Your task to perform on an android device: turn off smart reply in the gmail app Image 0: 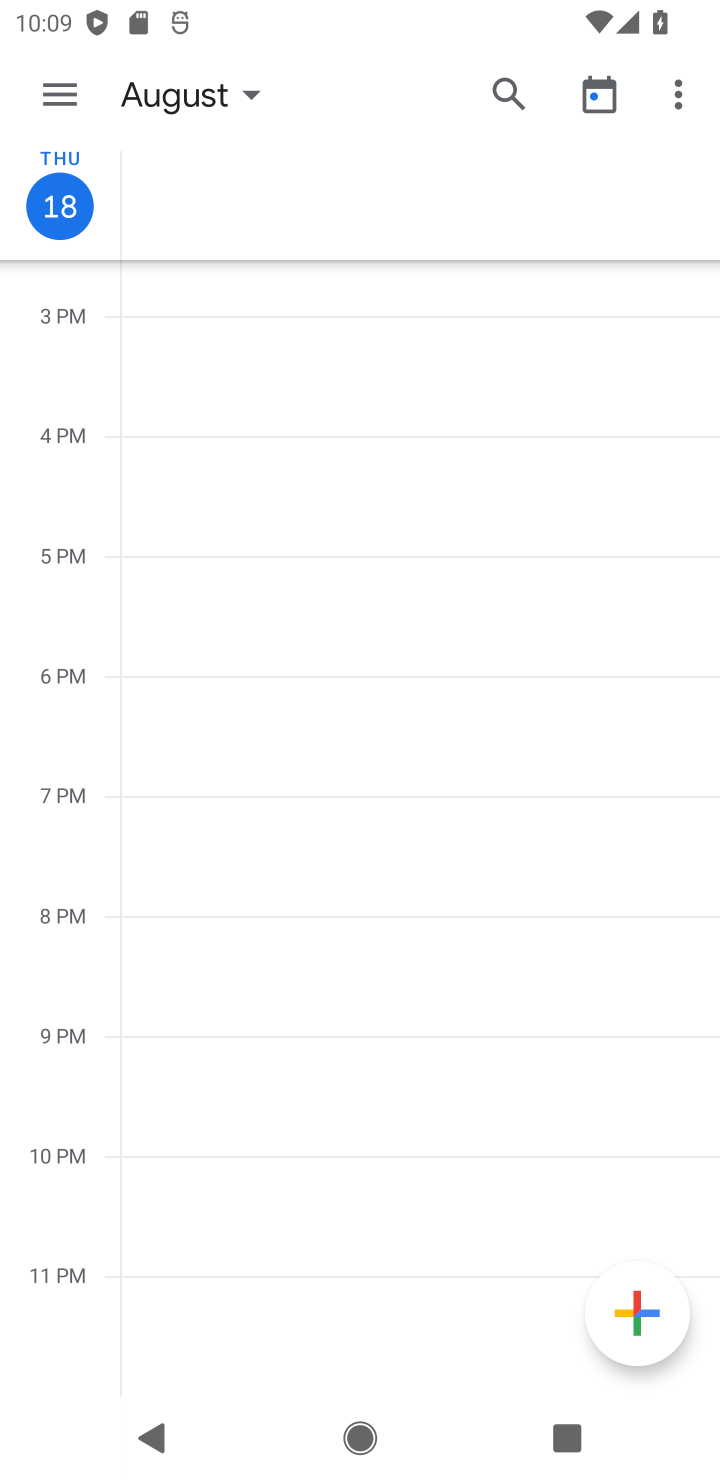
Step 0: press home button
Your task to perform on an android device: turn off smart reply in the gmail app Image 1: 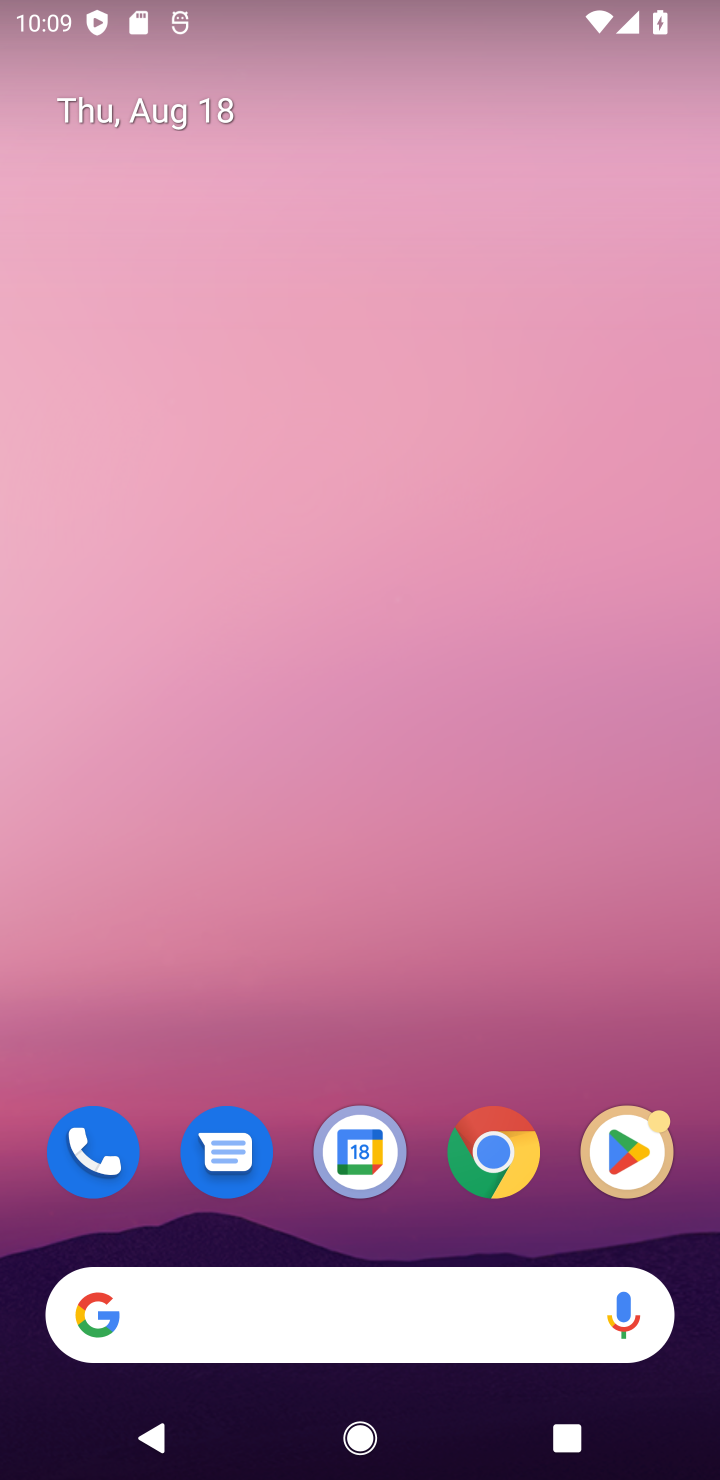
Step 1: drag from (449, 622) to (465, 31)
Your task to perform on an android device: turn off smart reply in the gmail app Image 2: 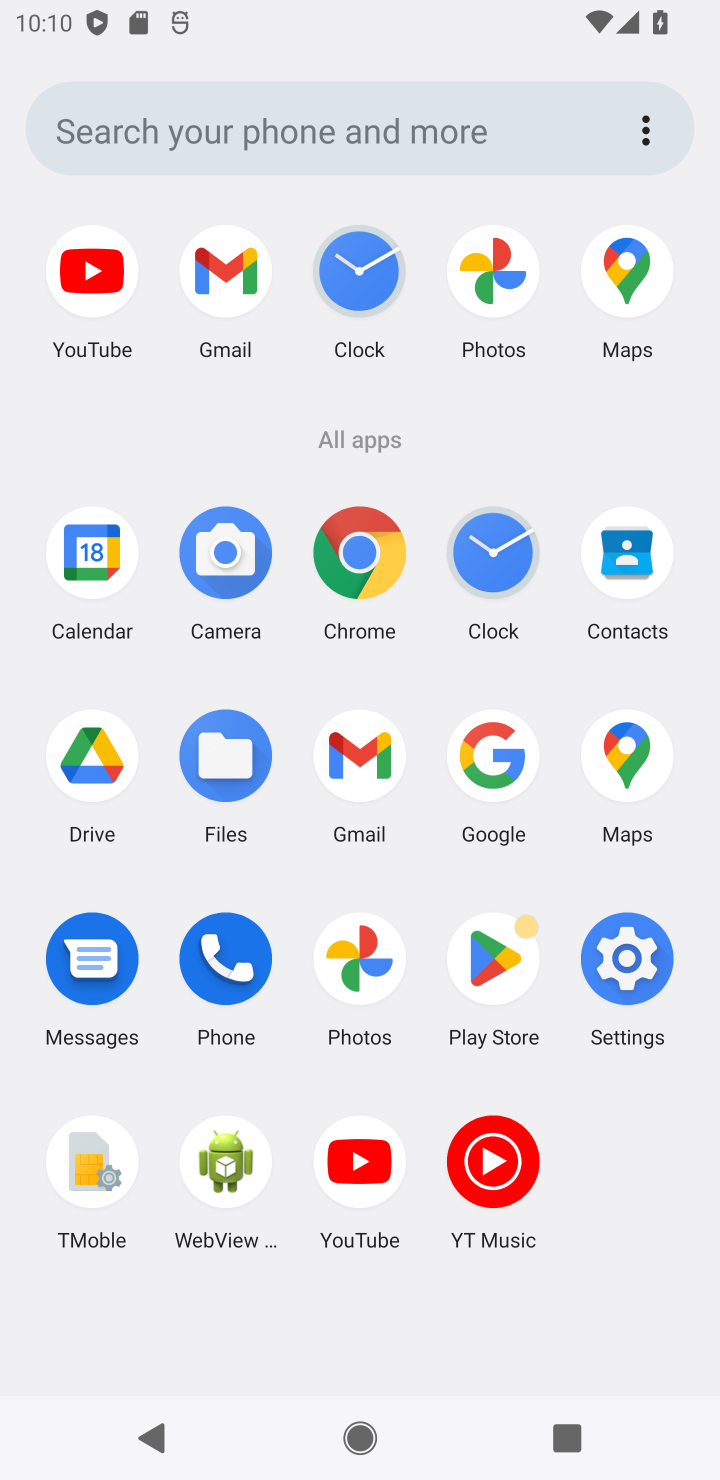
Step 2: click (232, 276)
Your task to perform on an android device: turn off smart reply in the gmail app Image 3: 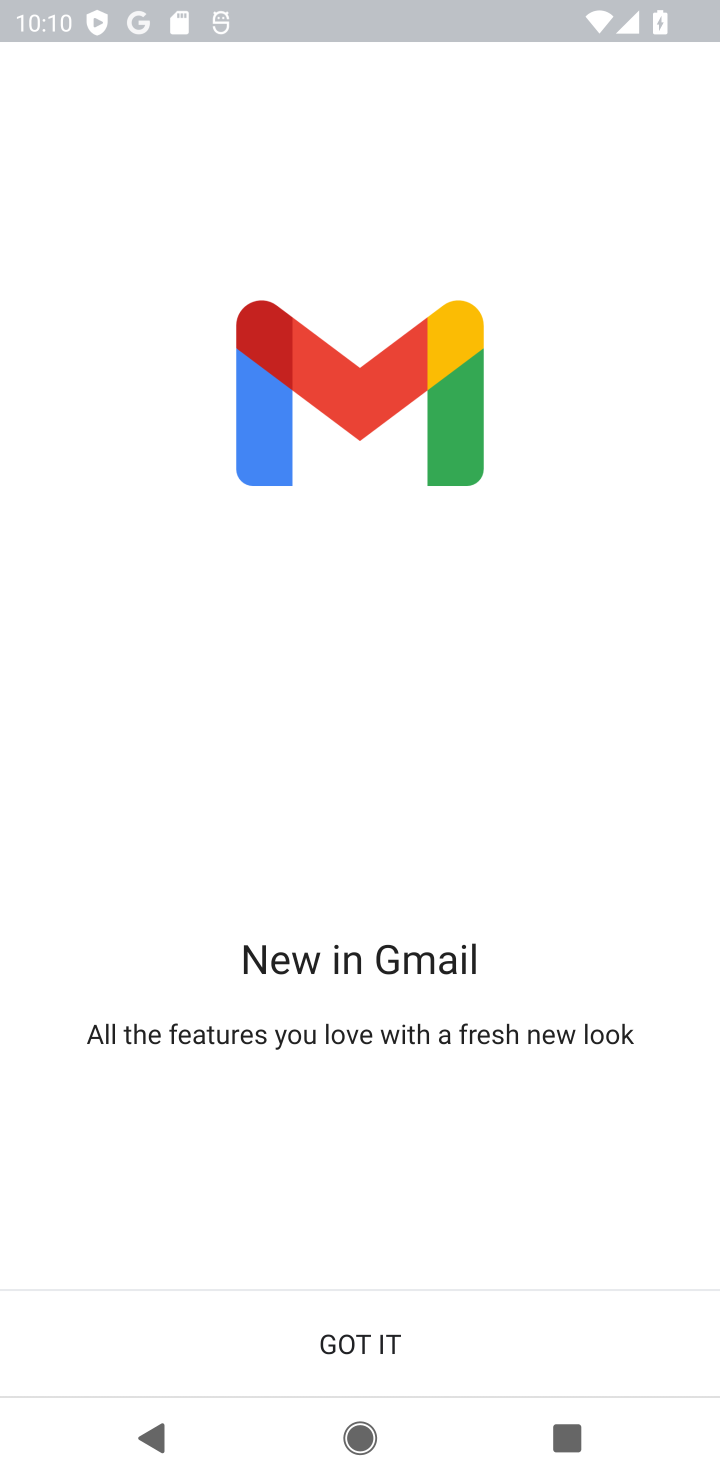
Step 3: click (353, 1342)
Your task to perform on an android device: turn off smart reply in the gmail app Image 4: 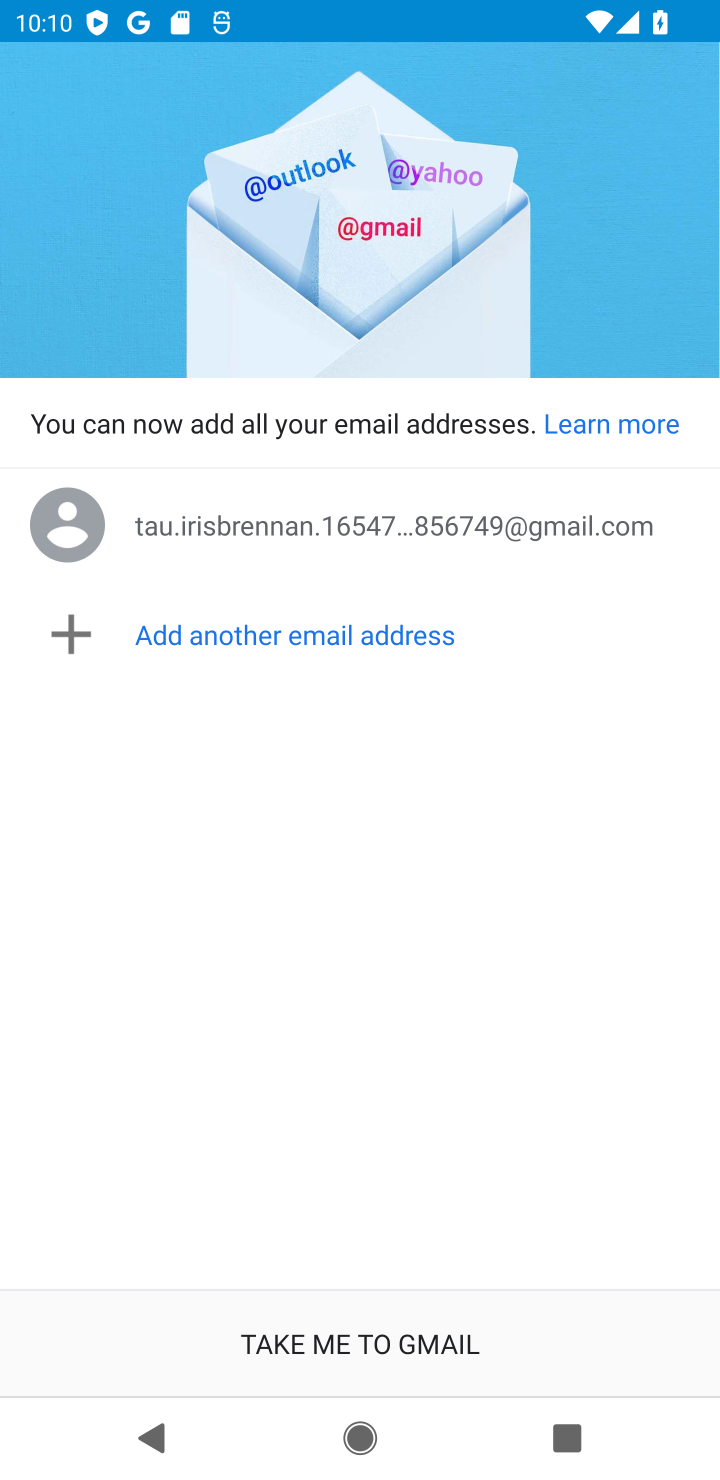
Step 4: click (371, 1324)
Your task to perform on an android device: turn off smart reply in the gmail app Image 5: 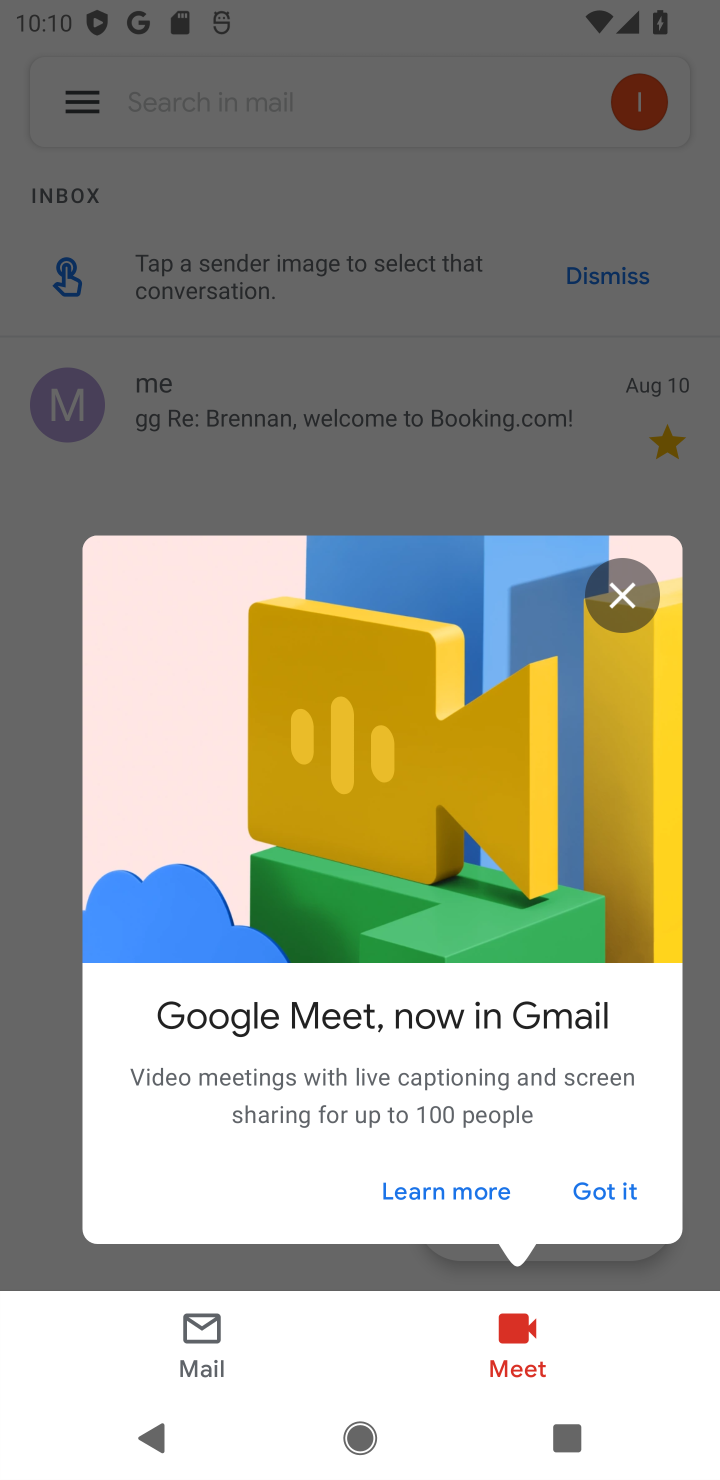
Step 5: click (634, 601)
Your task to perform on an android device: turn off smart reply in the gmail app Image 6: 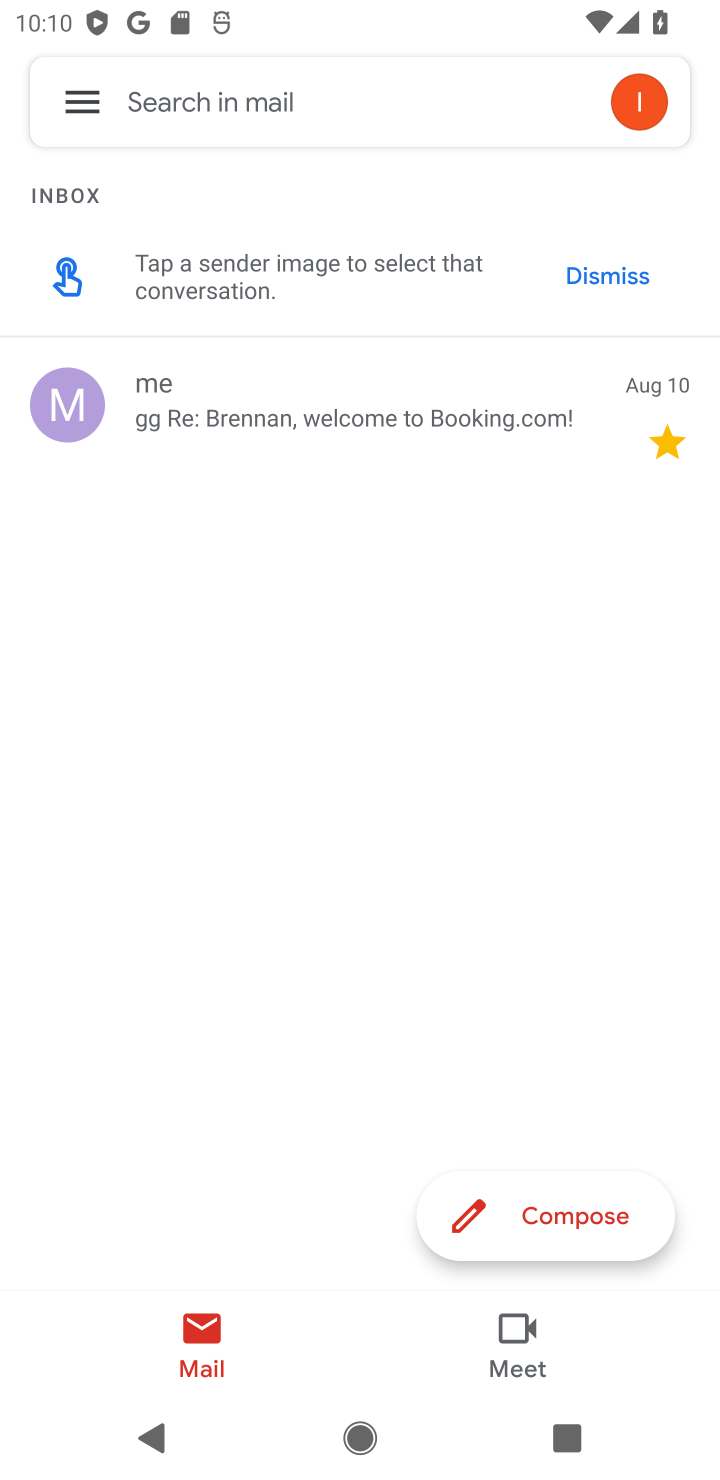
Step 6: click (86, 105)
Your task to perform on an android device: turn off smart reply in the gmail app Image 7: 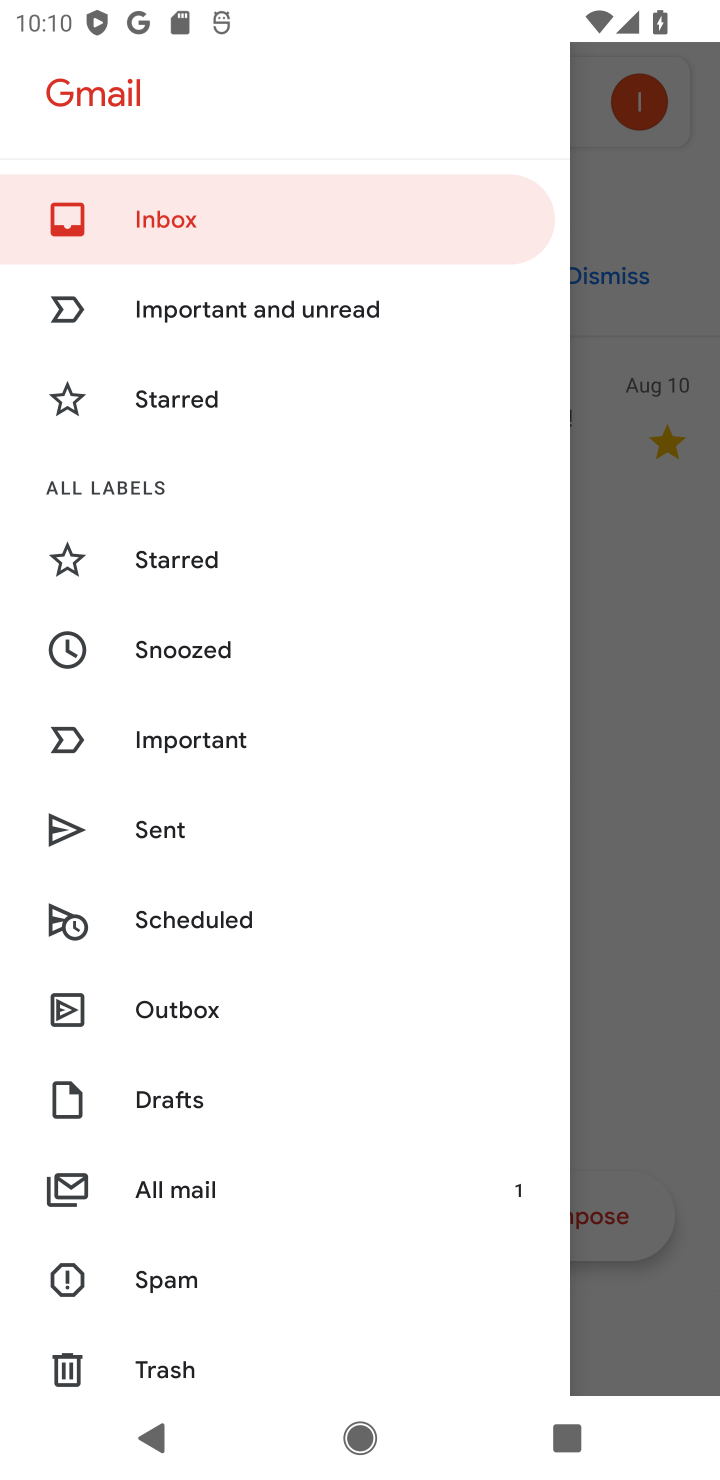
Step 7: drag from (262, 1189) to (421, 337)
Your task to perform on an android device: turn off smart reply in the gmail app Image 8: 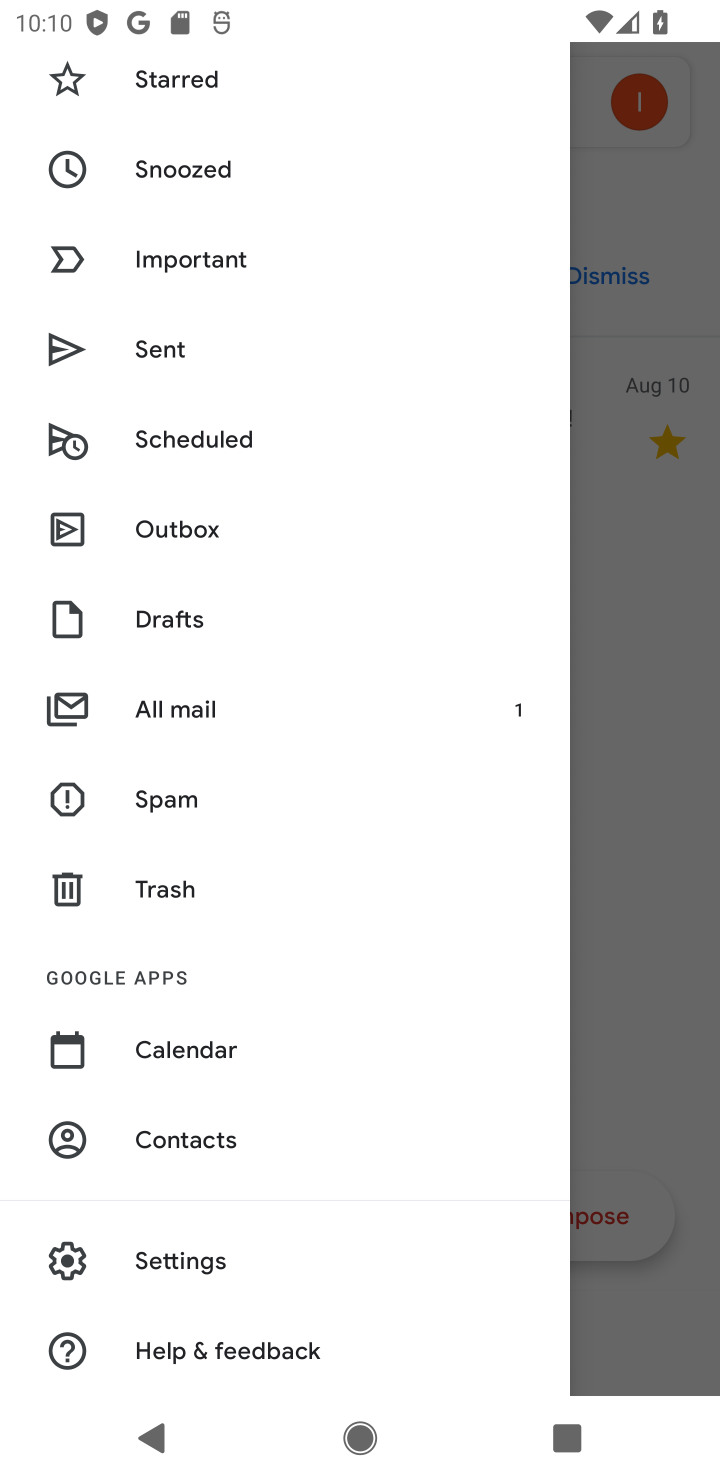
Step 8: click (202, 1249)
Your task to perform on an android device: turn off smart reply in the gmail app Image 9: 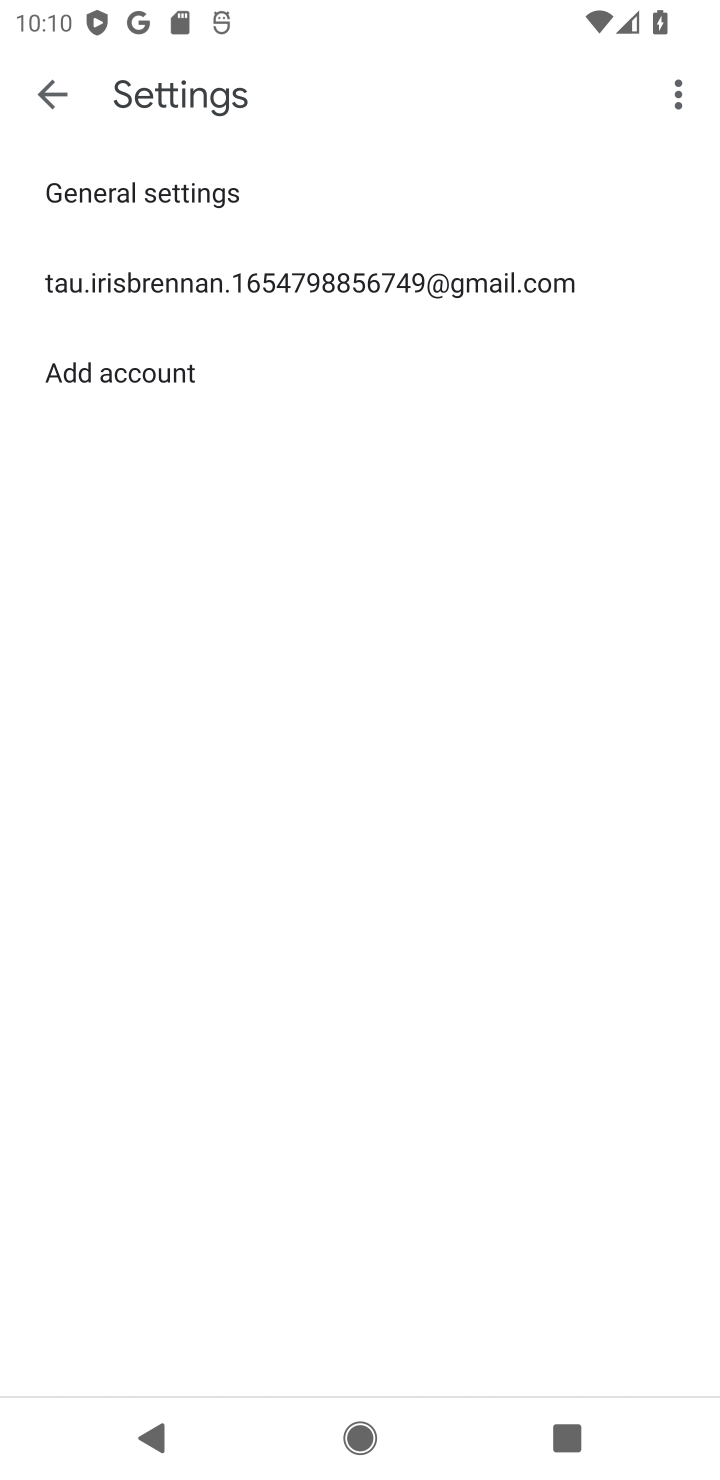
Step 9: click (472, 282)
Your task to perform on an android device: turn off smart reply in the gmail app Image 10: 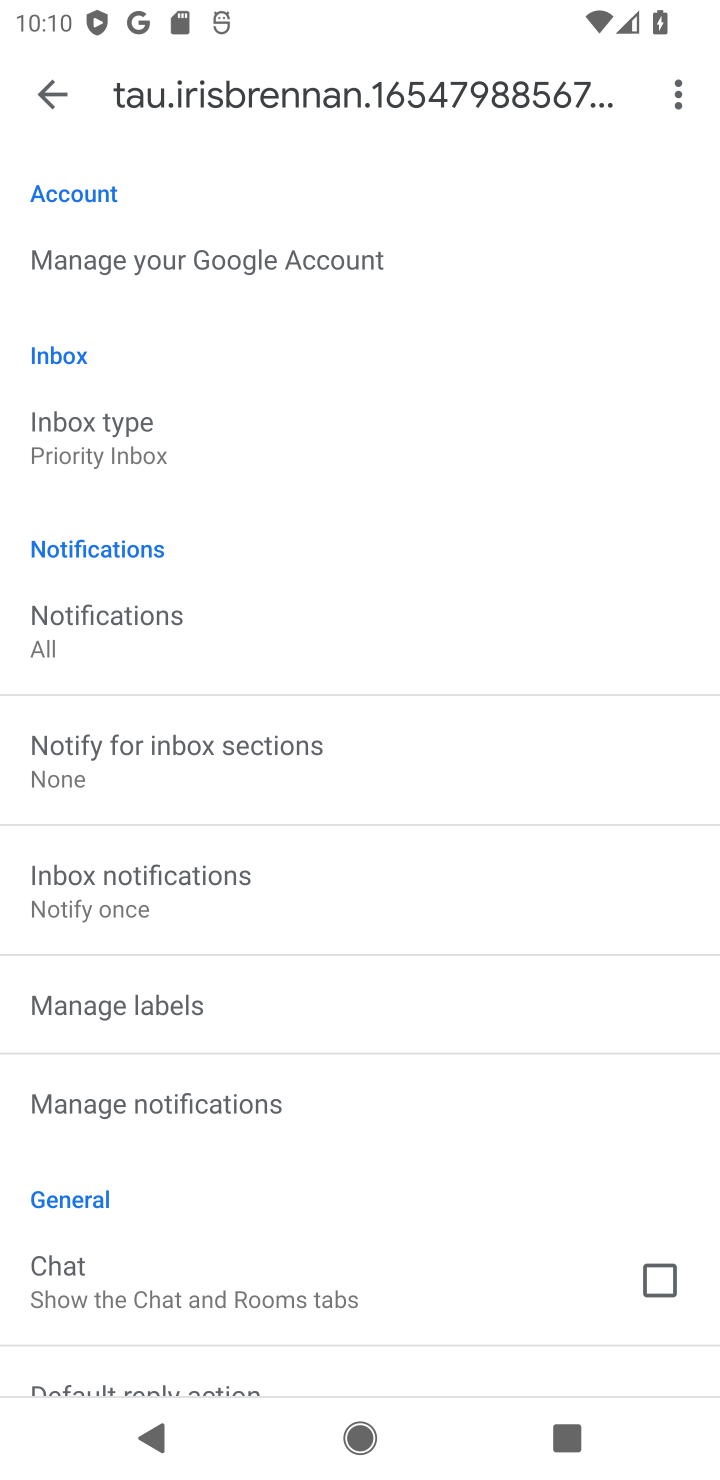
Step 10: drag from (294, 1202) to (490, 227)
Your task to perform on an android device: turn off smart reply in the gmail app Image 11: 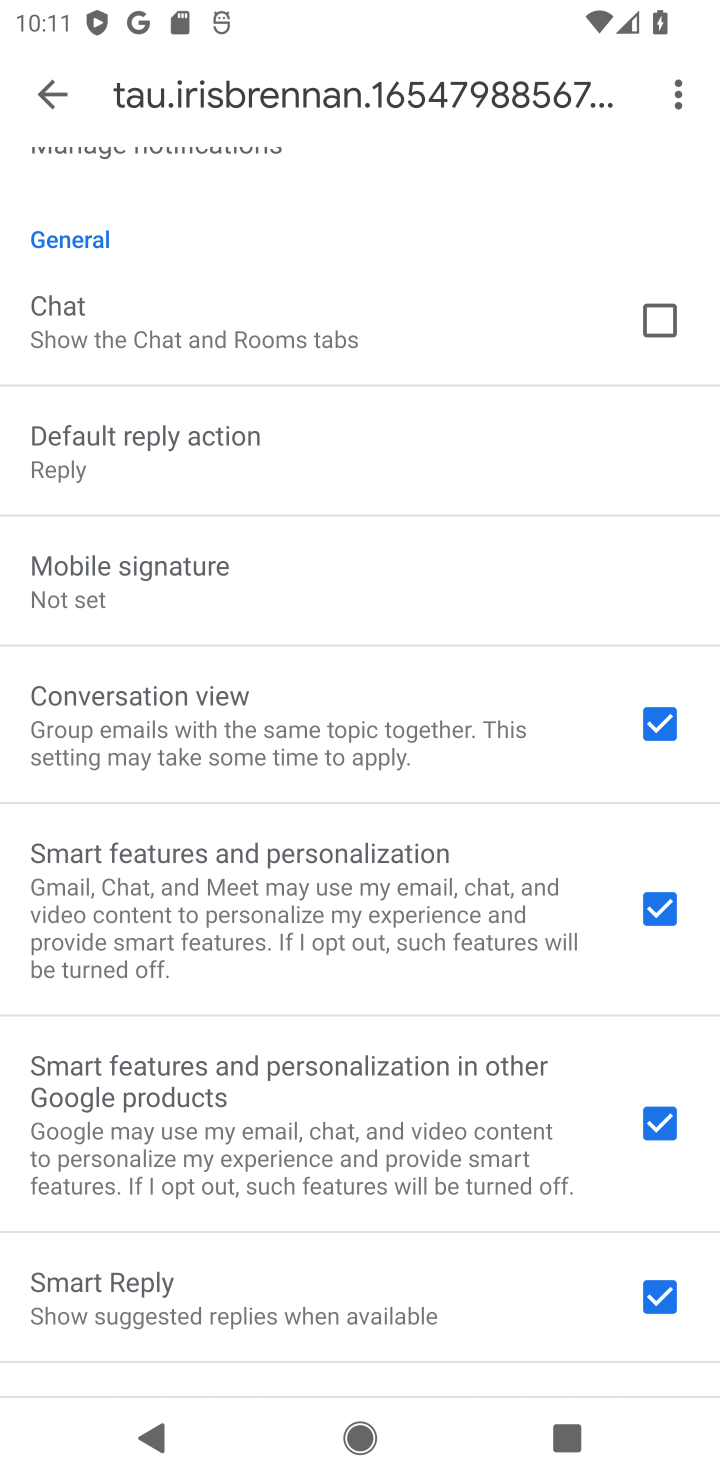
Step 11: click (652, 895)
Your task to perform on an android device: turn off smart reply in the gmail app Image 12: 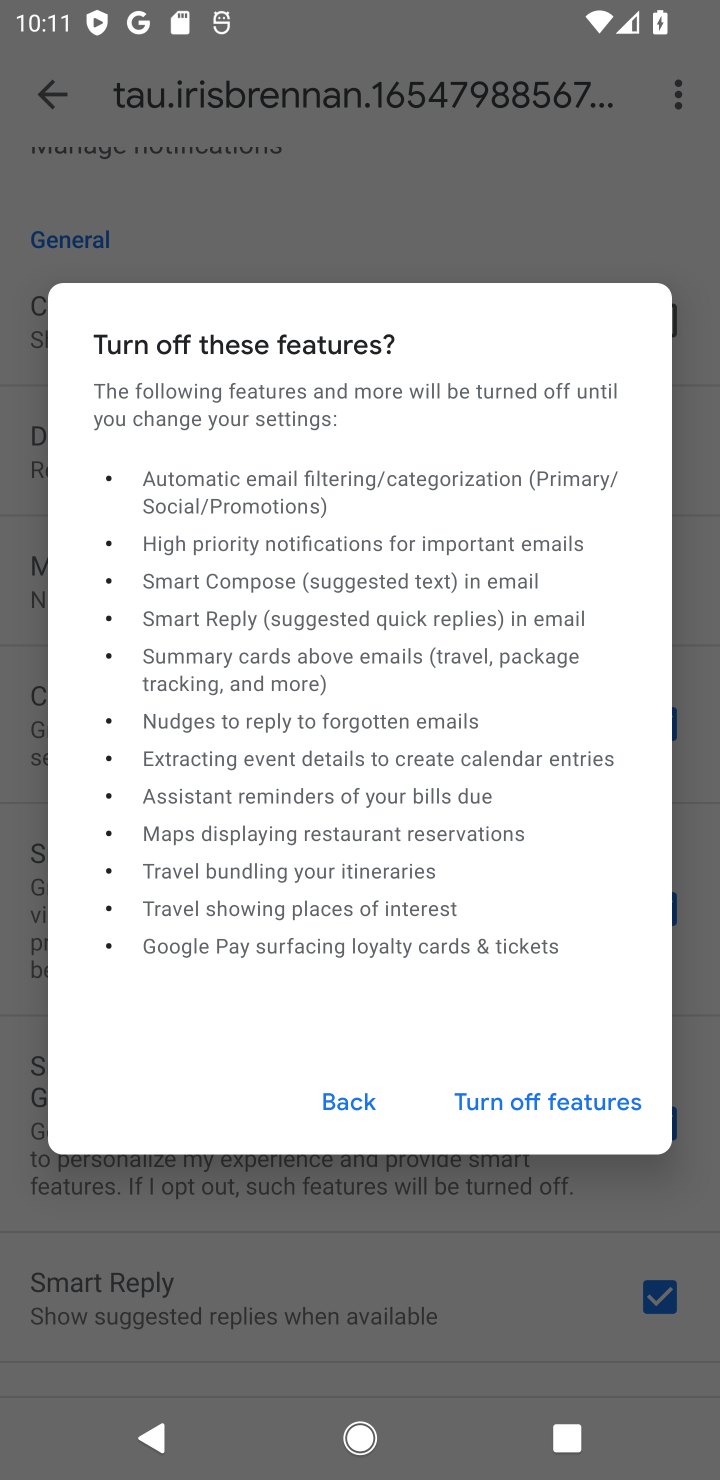
Step 12: click (601, 1096)
Your task to perform on an android device: turn off smart reply in the gmail app Image 13: 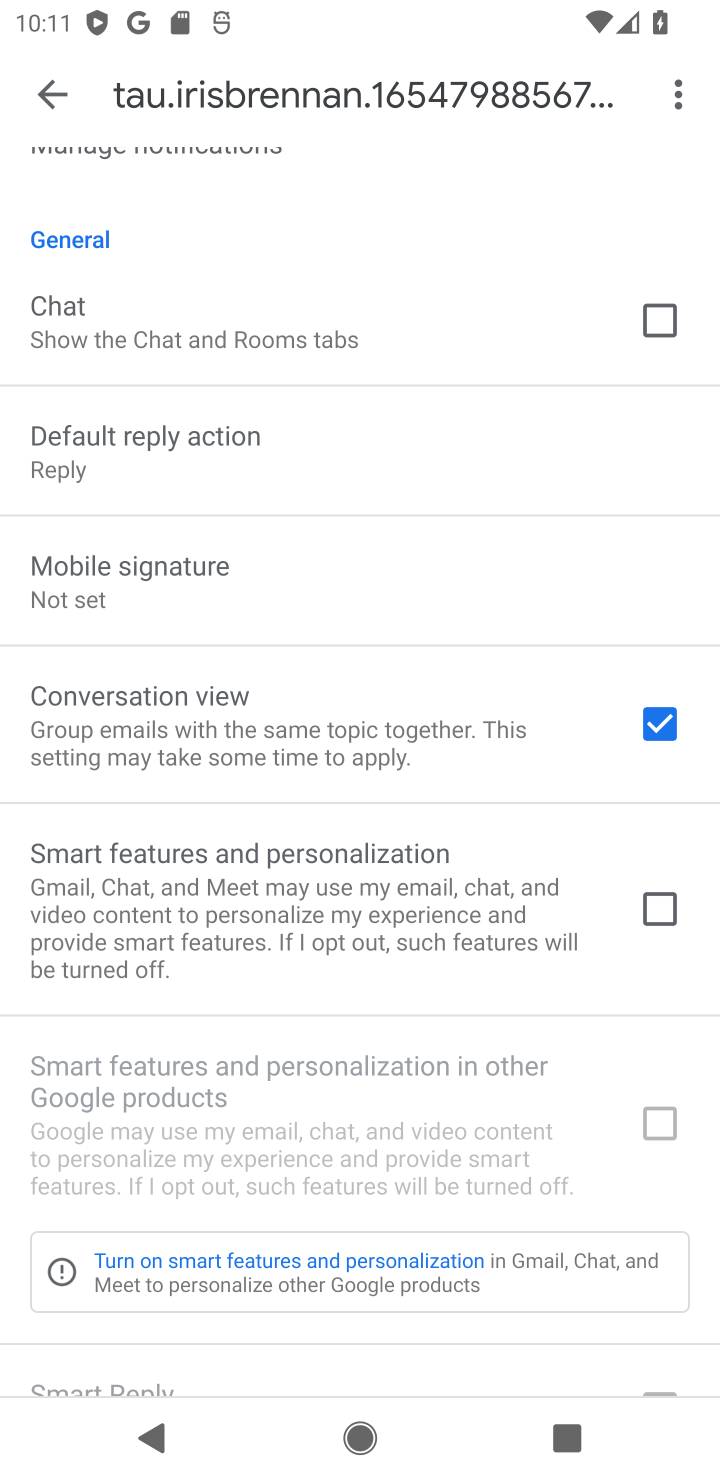
Step 13: task complete